Your task to perform on an android device: find snoozed emails in the gmail app Image 0: 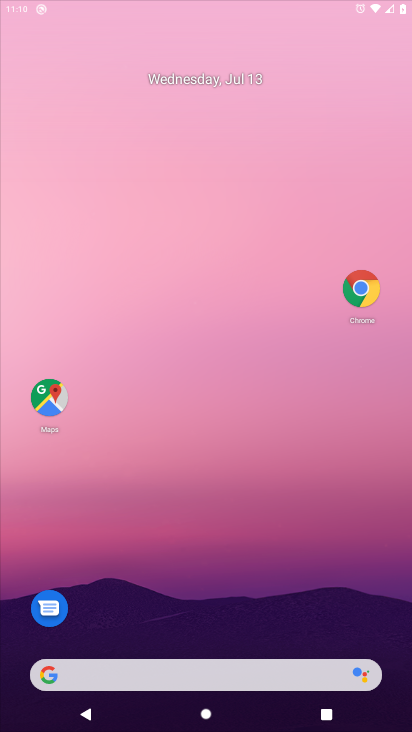
Step 0: click (74, 672)
Your task to perform on an android device: find snoozed emails in the gmail app Image 1: 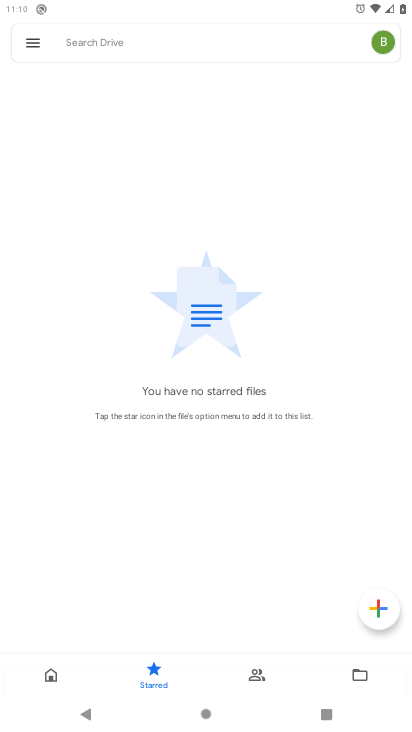
Step 1: press home button
Your task to perform on an android device: find snoozed emails in the gmail app Image 2: 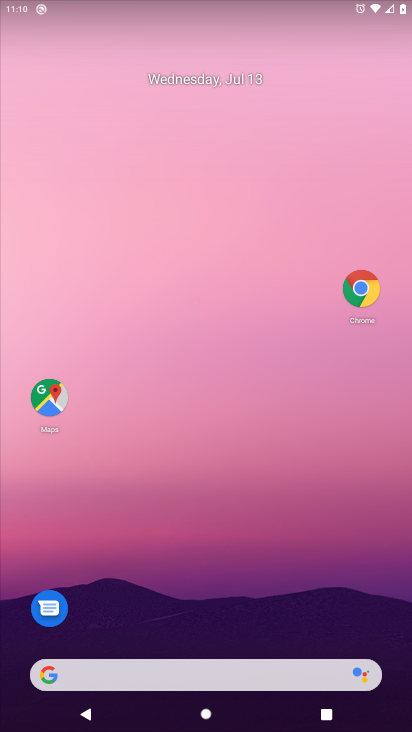
Step 2: drag from (36, 704) to (408, 2)
Your task to perform on an android device: find snoozed emails in the gmail app Image 3: 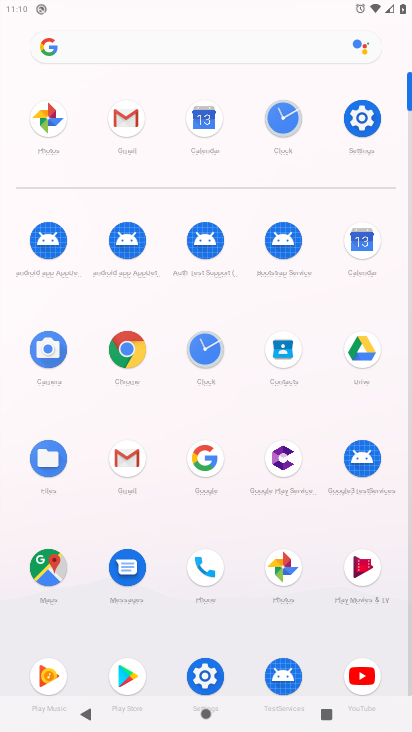
Step 3: click (117, 449)
Your task to perform on an android device: find snoozed emails in the gmail app Image 4: 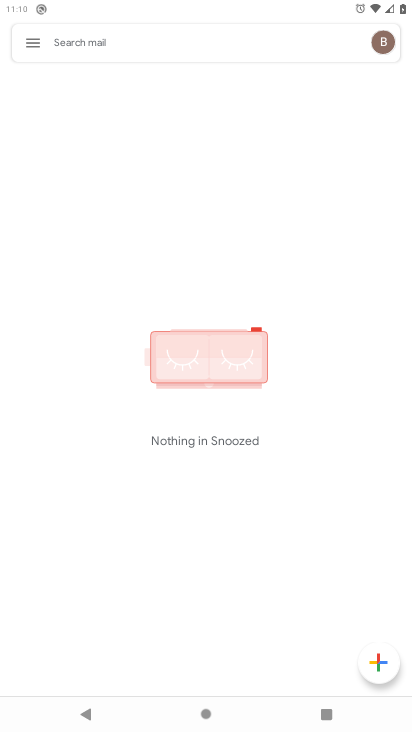
Step 4: click (25, 43)
Your task to perform on an android device: find snoozed emails in the gmail app Image 5: 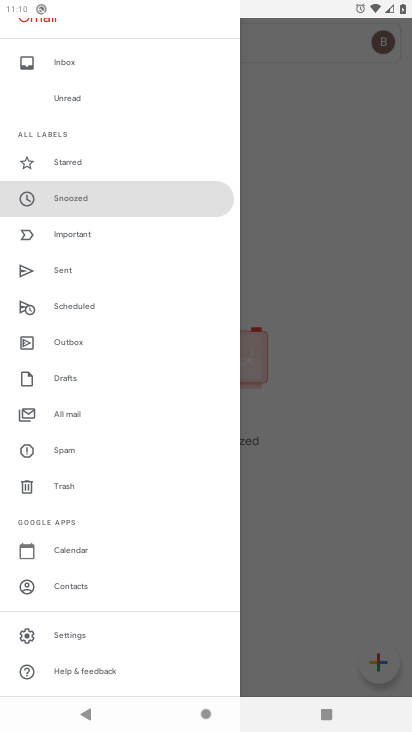
Step 5: click (83, 202)
Your task to perform on an android device: find snoozed emails in the gmail app Image 6: 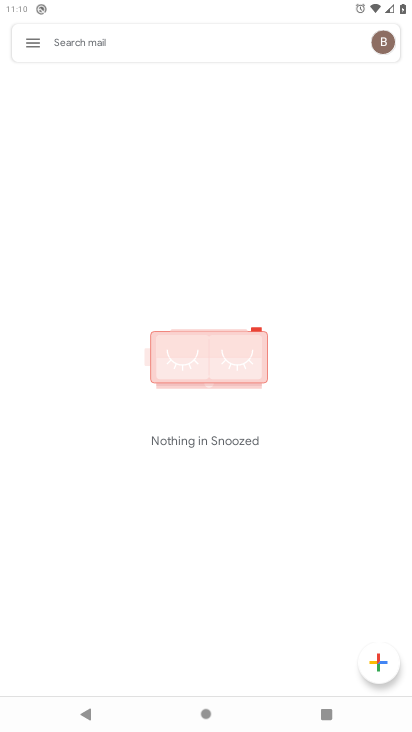
Step 6: task complete